Your task to perform on an android device: turn off data saver in the chrome app Image 0: 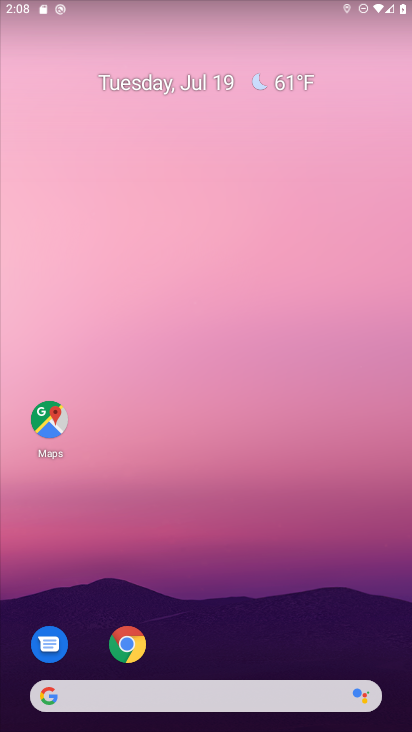
Step 0: drag from (221, 666) to (178, 67)
Your task to perform on an android device: turn off data saver in the chrome app Image 1: 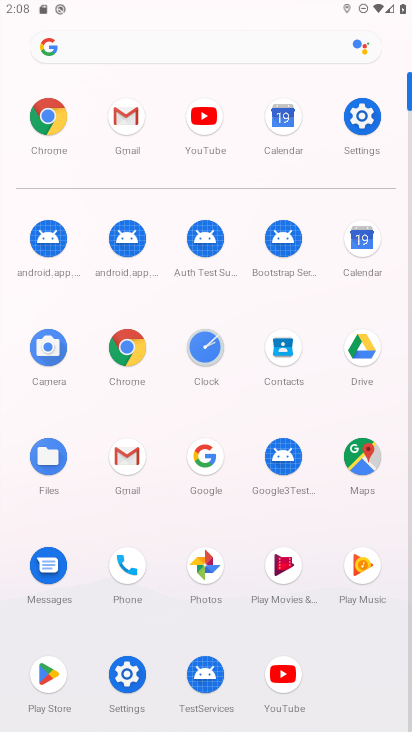
Step 1: click (117, 358)
Your task to perform on an android device: turn off data saver in the chrome app Image 2: 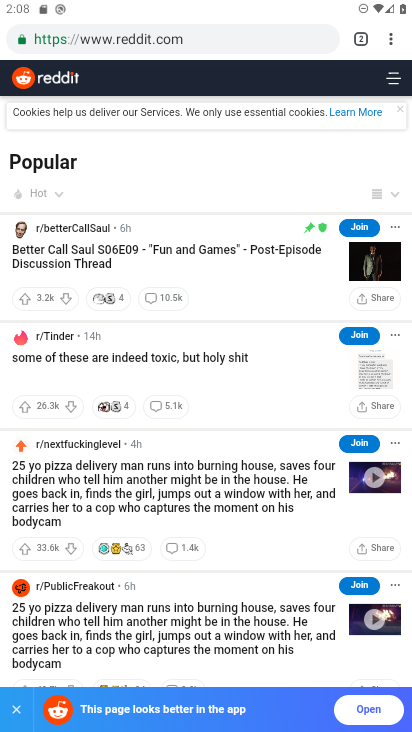
Step 2: drag from (386, 38) to (264, 466)
Your task to perform on an android device: turn off data saver in the chrome app Image 3: 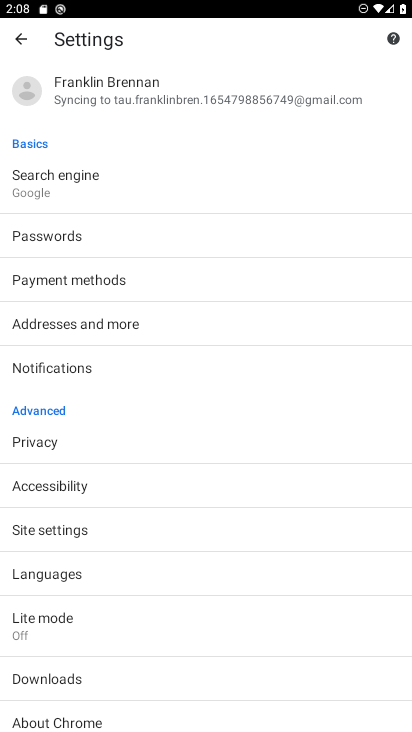
Step 3: click (67, 616)
Your task to perform on an android device: turn off data saver in the chrome app Image 4: 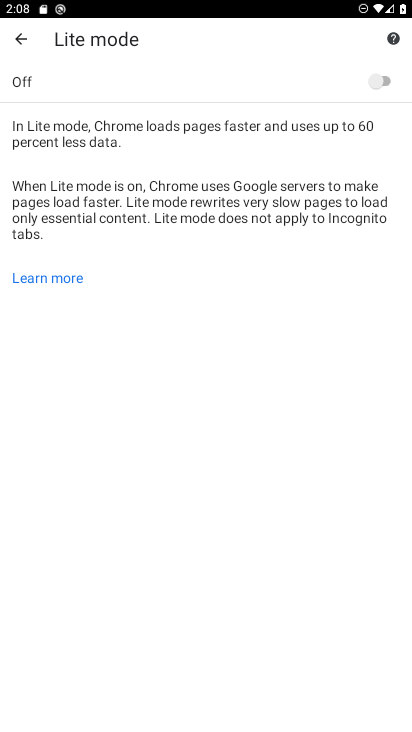
Step 4: task complete